Your task to perform on an android device: Show me popular games on the Play Store Image 0: 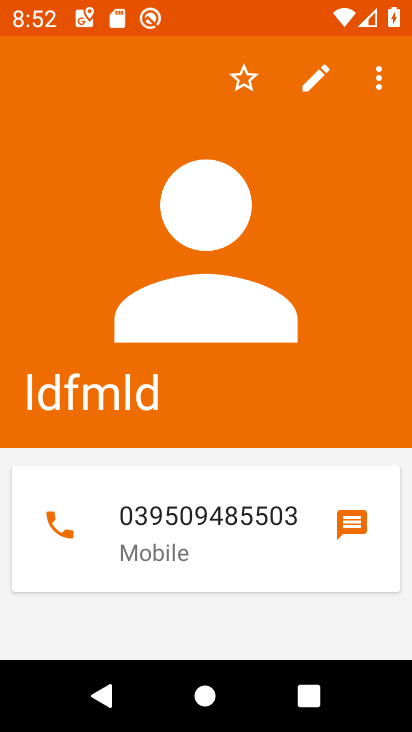
Step 0: press home button
Your task to perform on an android device: Show me popular games on the Play Store Image 1: 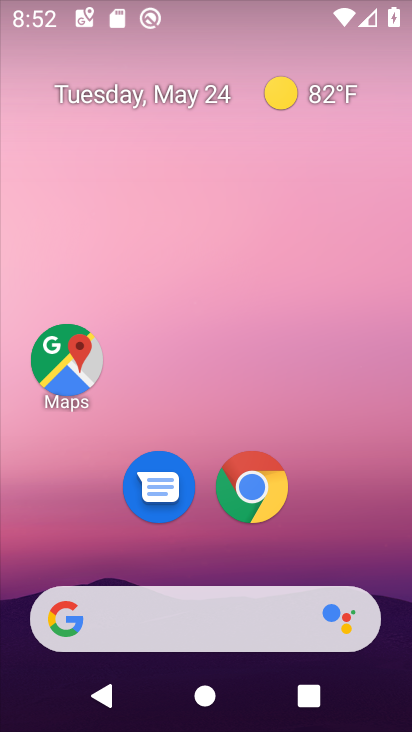
Step 1: drag from (282, 565) to (288, 122)
Your task to perform on an android device: Show me popular games on the Play Store Image 2: 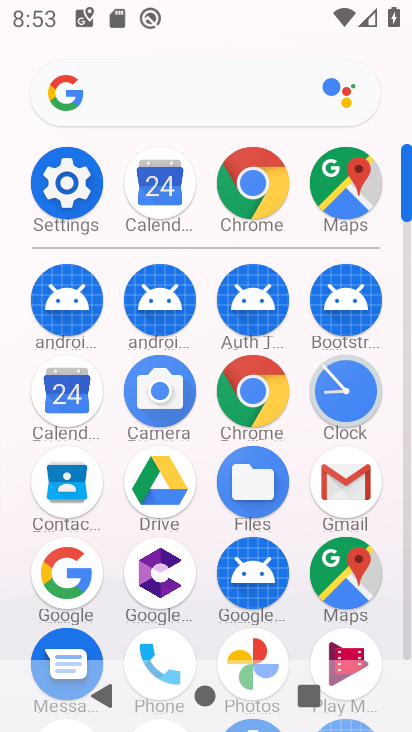
Step 2: drag from (197, 607) to (217, 231)
Your task to perform on an android device: Show me popular games on the Play Store Image 3: 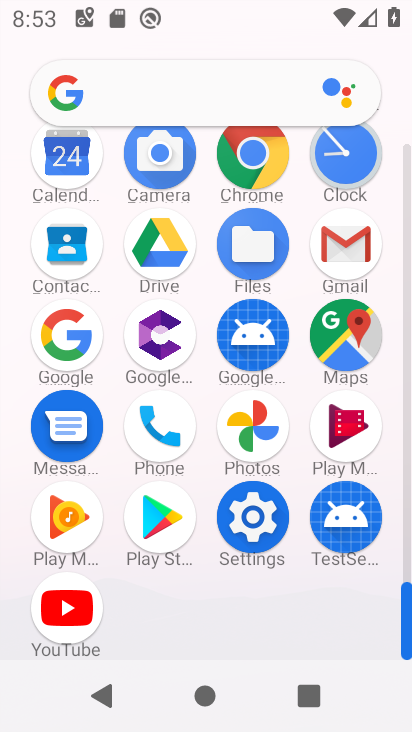
Step 3: click (164, 536)
Your task to perform on an android device: Show me popular games on the Play Store Image 4: 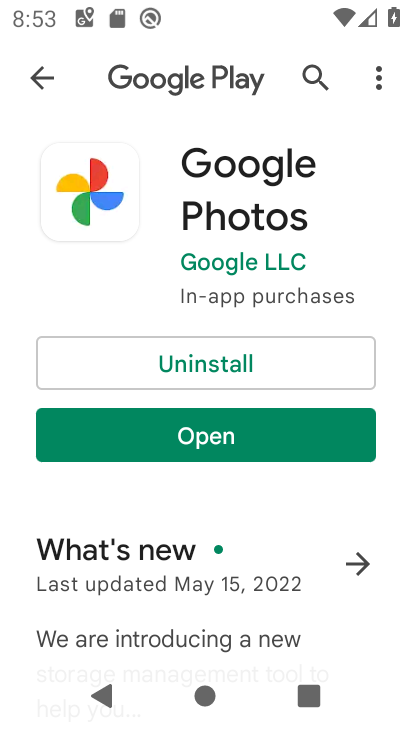
Step 4: click (34, 81)
Your task to perform on an android device: Show me popular games on the Play Store Image 5: 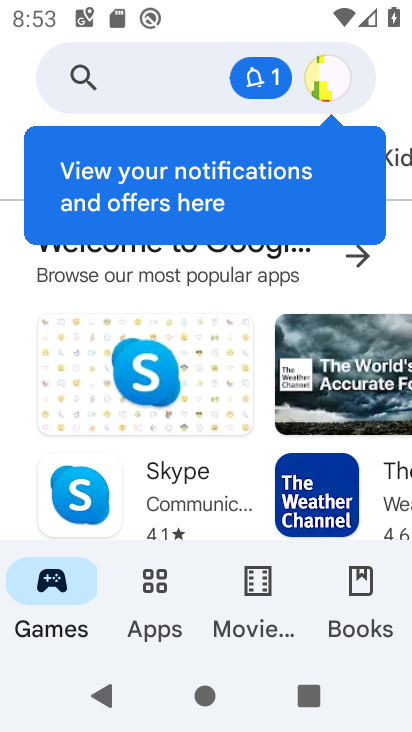
Step 5: click (157, 604)
Your task to perform on an android device: Show me popular games on the Play Store Image 6: 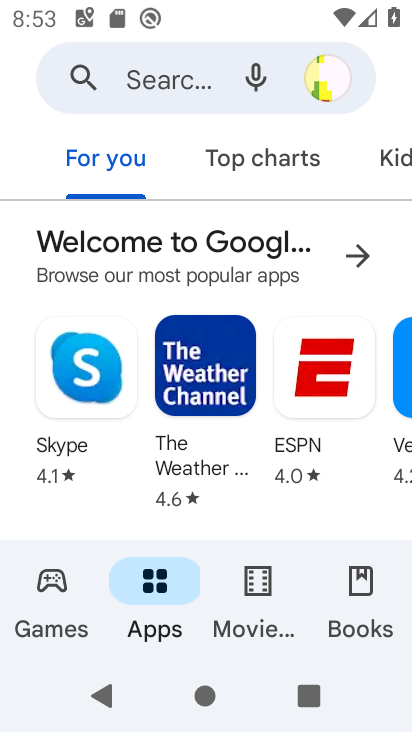
Step 6: drag from (330, 162) to (0, 173)
Your task to perform on an android device: Show me popular games on the Play Store Image 7: 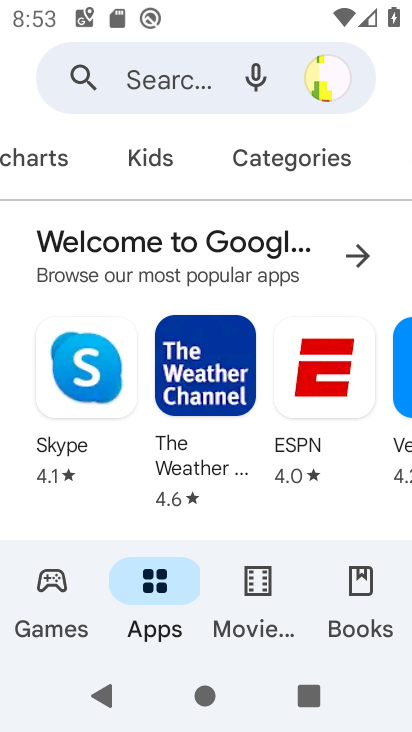
Step 7: click (289, 157)
Your task to perform on an android device: Show me popular games on the Play Store Image 8: 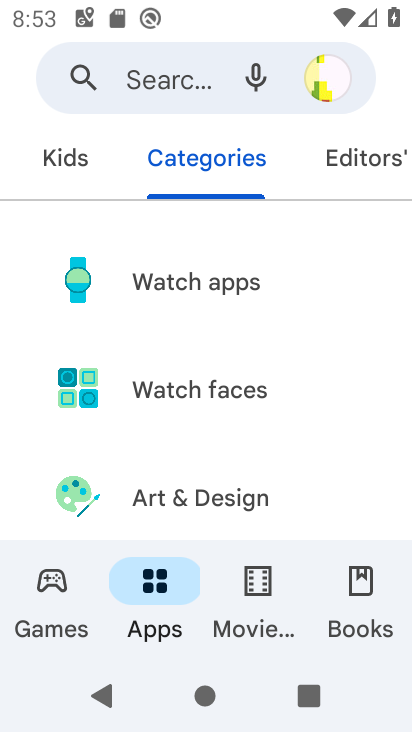
Step 8: click (58, 637)
Your task to perform on an android device: Show me popular games on the Play Store Image 9: 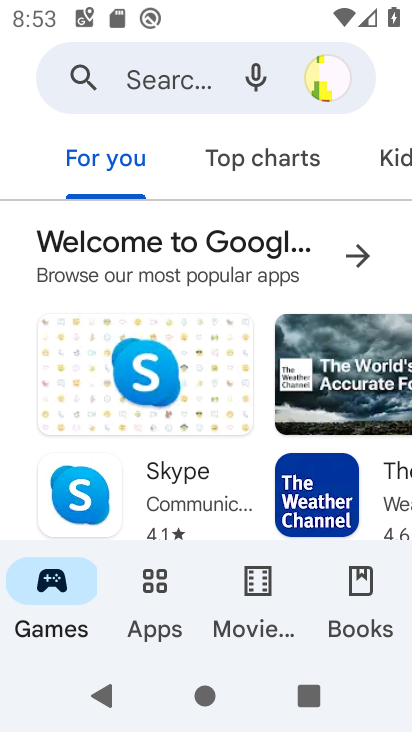
Step 9: click (256, 160)
Your task to perform on an android device: Show me popular games on the Play Store Image 10: 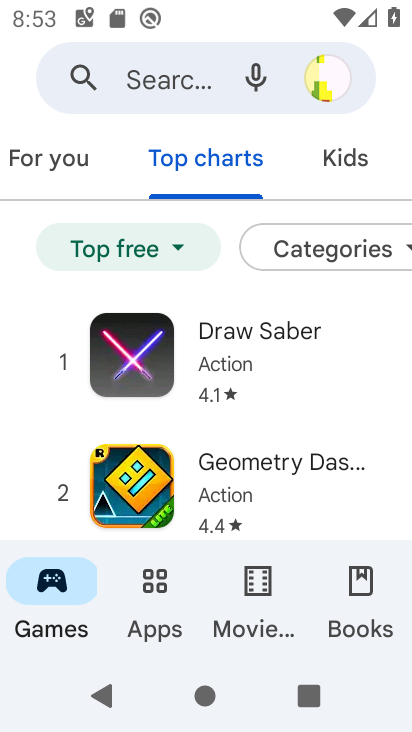
Step 10: task complete